Your task to perform on an android device: find photos in the google photos app Image 0: 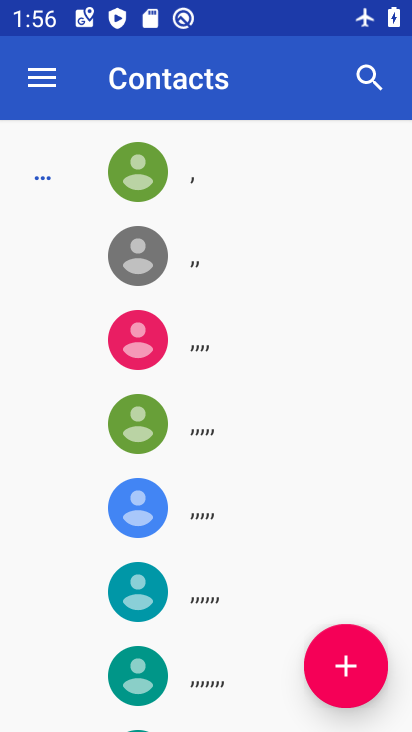
Step 0: press home button
Your task to perform on an android device: find photos in the google photos app Image 1: 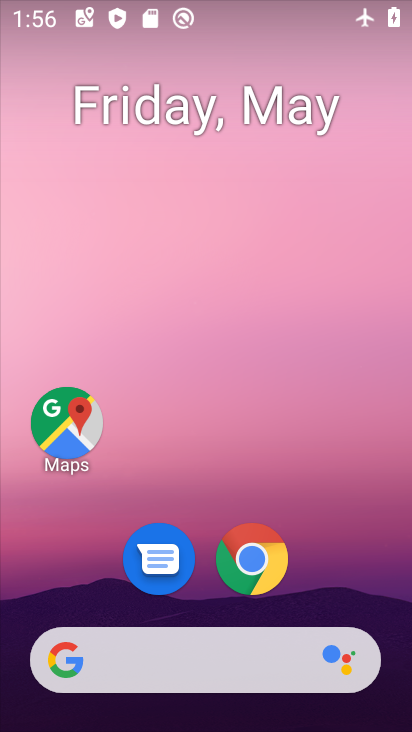
Step 1: drag from (318, 559) to (301, 259)
Your task to perform on an android device: find photos in the google photos app Image 2: 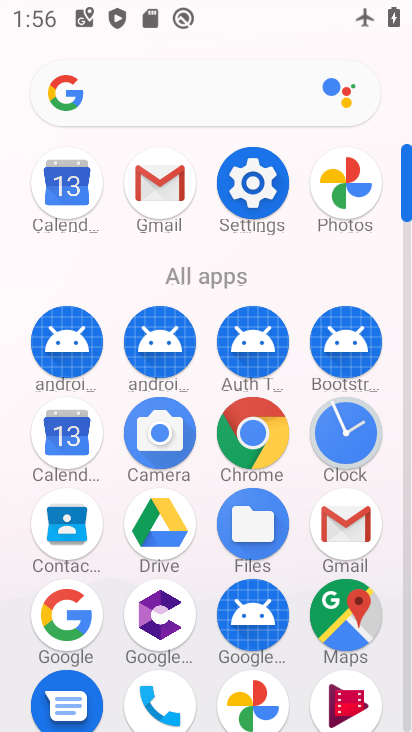
Step 2: click (251, 685)
Your task to perform on an android device: find photos in the google photos app Image 3: 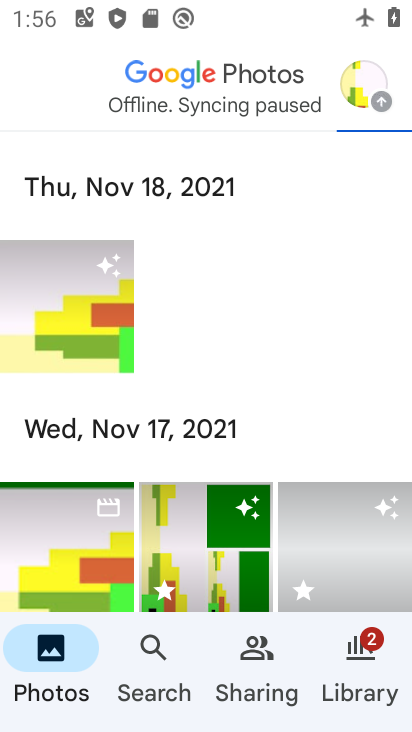
Step 3: task complete